Your task to perform on an android device: Open Google Chrome and open the bookmarks view Image 0: 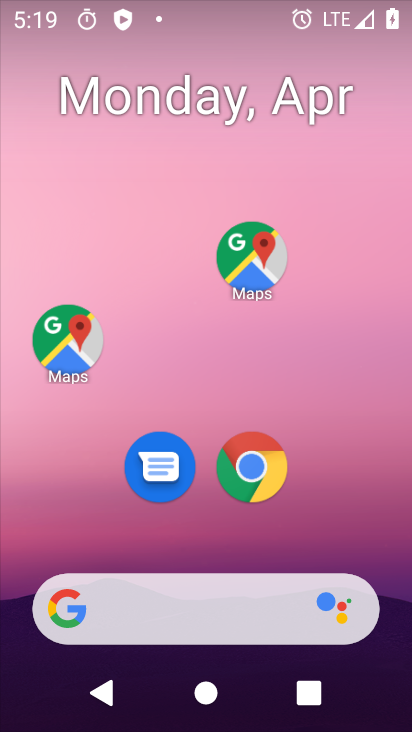
Step 0: drag from (319, 513) to (356, 20)
Your task to perform on an android device: Open Google Chrome and open the bookmarks view Image 1: 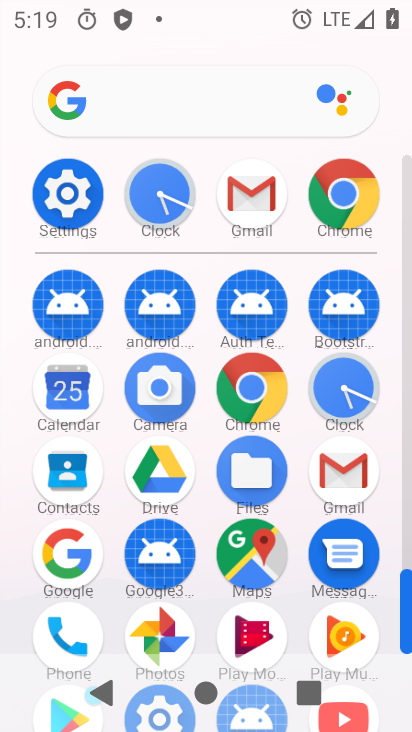
Step 1: click (251, 409)
Your task to perform on an android device: Open Google Chrome and open the bookmarks view Image 2: 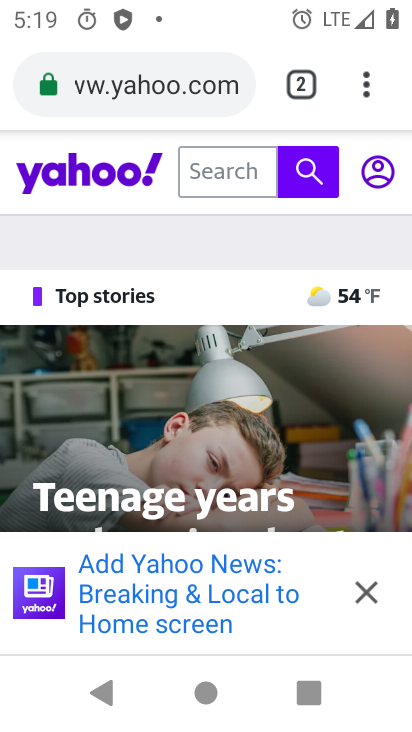
Step 2: click (361, 76)
Your task to perform on an android device: Open Google Chrome and open the bookmarks view Image 3: 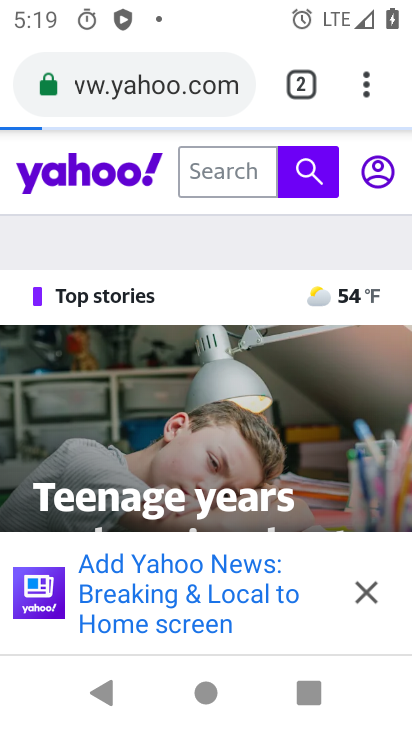
Step 3: task complete